Your task to perform on an android device: Open calendar and show me the second week of next month Image 0: 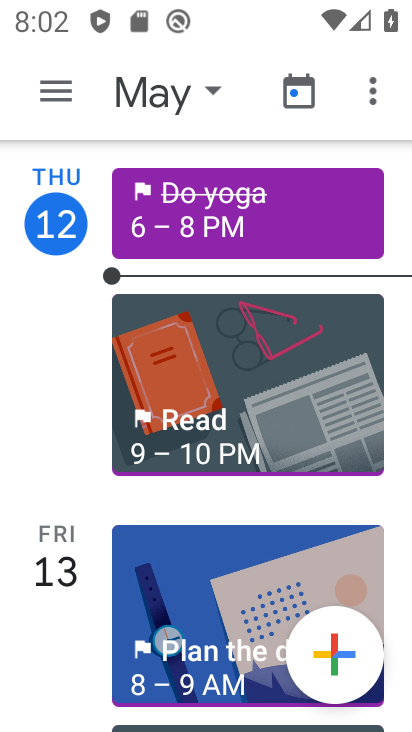
Step 0: press home button
Your task to perform on an android device: Open calendar and show me the second week of next month Image 1: 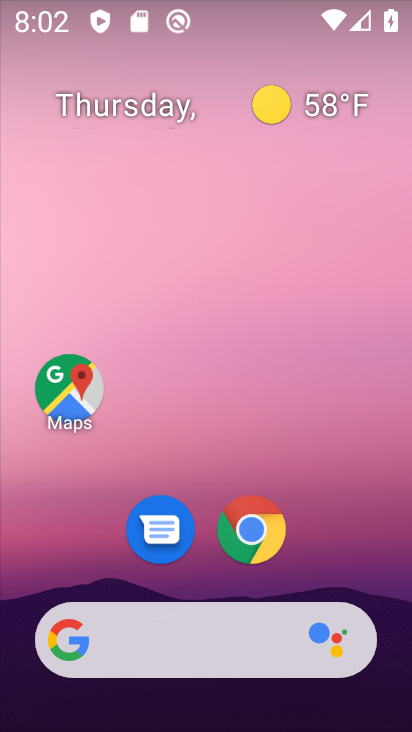
Step 1: drag from (213, 579) to (264, 152)
Your task to perform on an android device: Open calendar and show me the second week of next month Image 2: 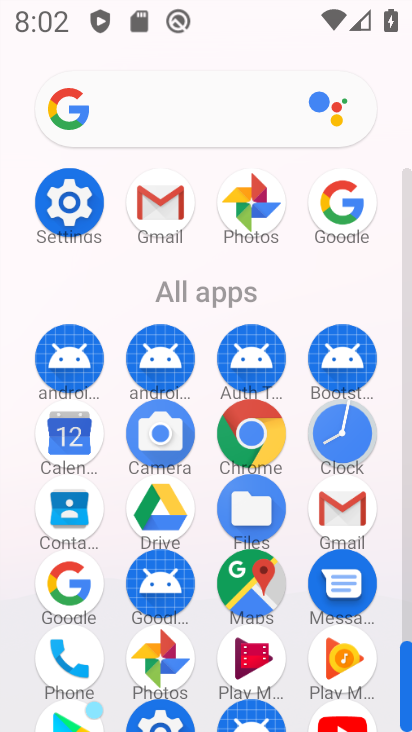
Step 2: click (70, 440)
Your task to perform on an android device: Open calendar and show me the second week of next month Image 3: 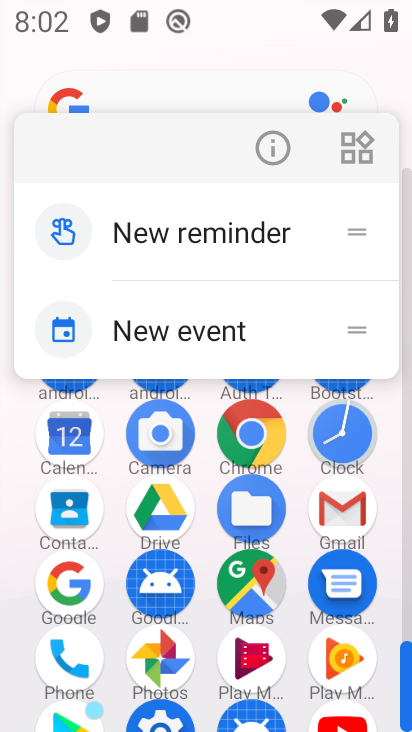
Step 3: click (55, 446)
Your task to perform on an android device: Open calendar and show me the second week of next month Image 4: 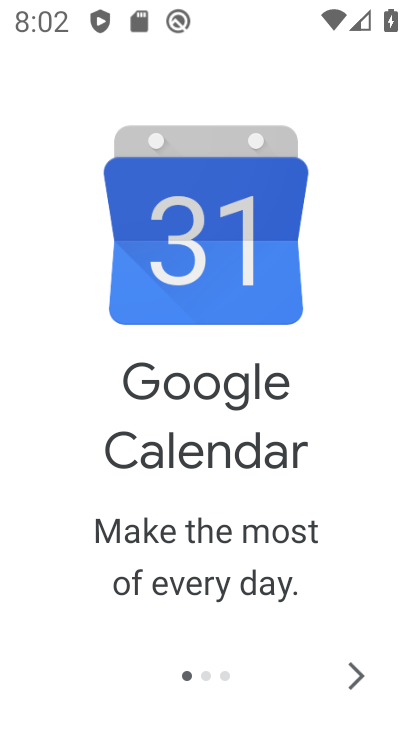
Step 4: click (359, 681)
Your task to perform on an android device: Open calendar and show me the second week of next month Image 5: 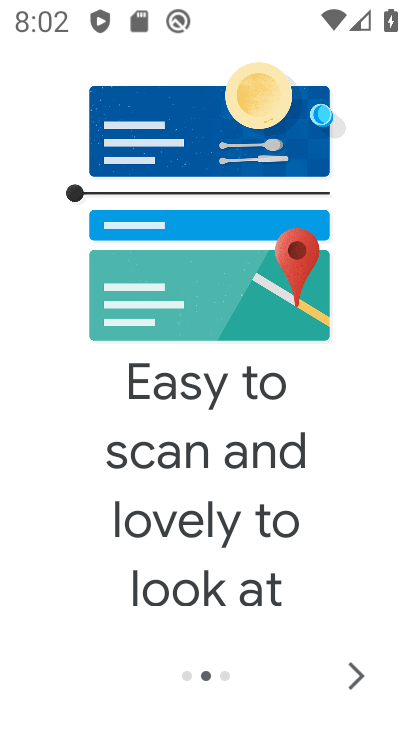
Step 5: click (359, 681)
Your task to perform on an android device: Open calendar and show me the second week of next month Image 6: 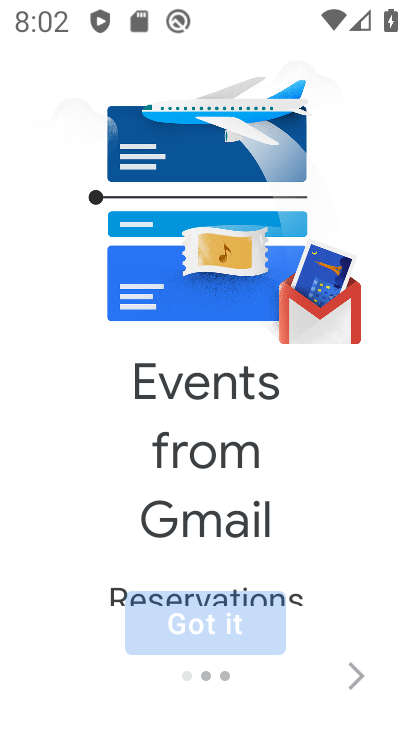
Step 6: click (359, 681)
Your task to perform on an android device: Open calendar and show me the second week of next month Image 7: 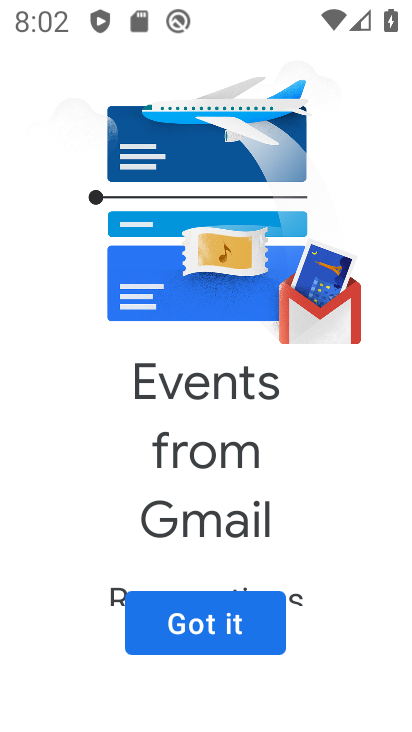
Step 7: click (223, 621)
Your task to perform on an android device: Open calendar and show me the second week of next month Image 8: 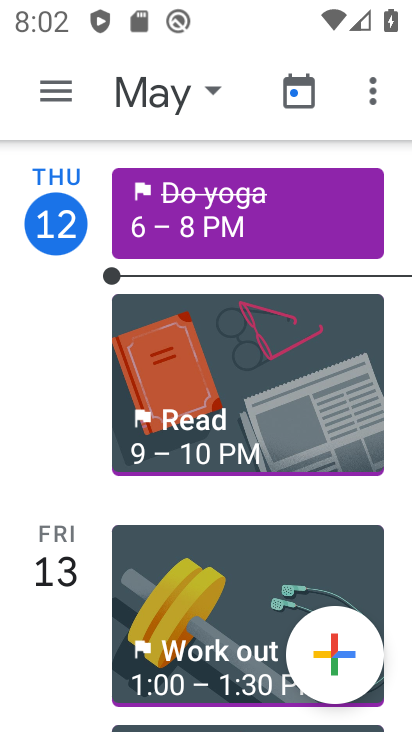
Step 8: click (203, 94)
Your task to perform on an android device: Open calendar and show me the second week of next month Image 9: 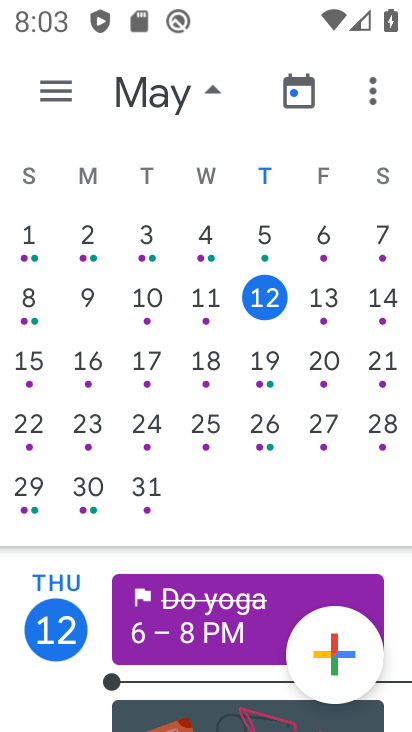
Step 9: drag from (365, 507) to (0, 465)
Your task to perform on an android device: Open calendar and show me the second week of next month Image 10: 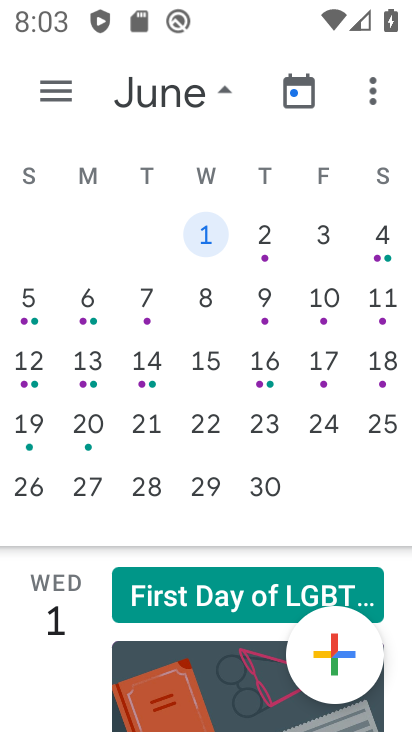
Step 10: click (263, 302)
Your task to perform on an android device: Open calendar and show me the second week of next month Image 11: 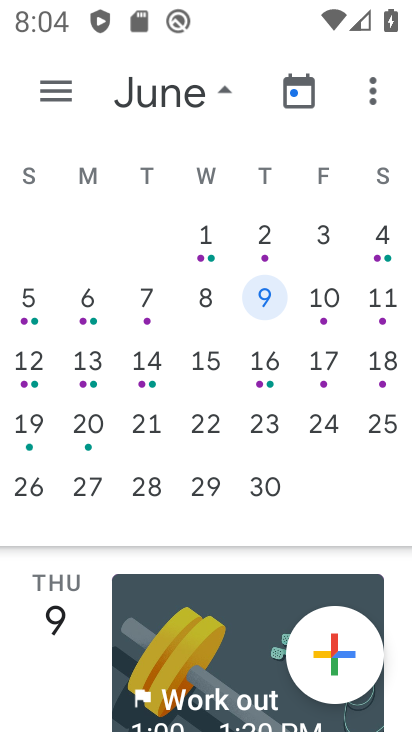
Step 11: task complete